Your task to perform on an android device: manage bookmarks in the chrome app Image 0: 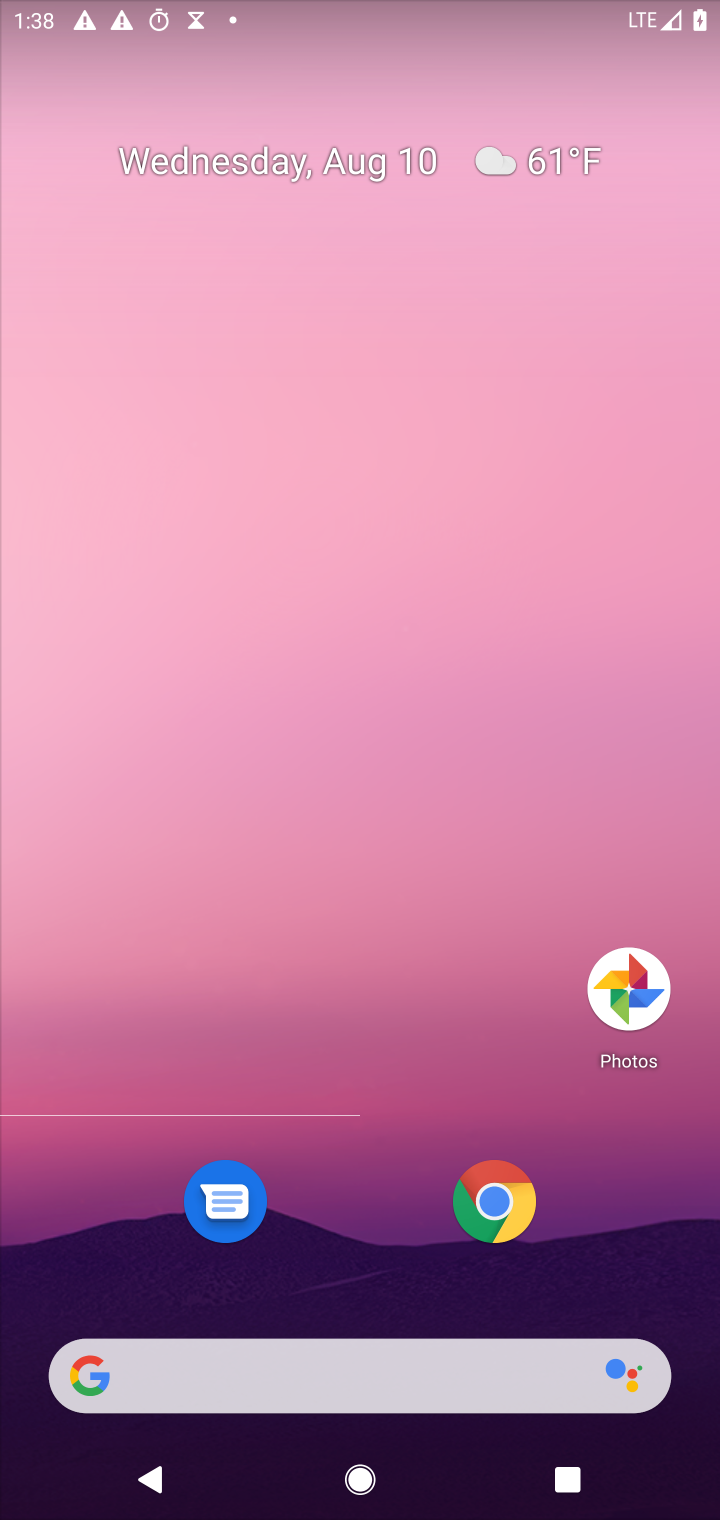
Step 0: press home button
Your task to perform on an android device: manage bookmarks in the chrome app Image 1: 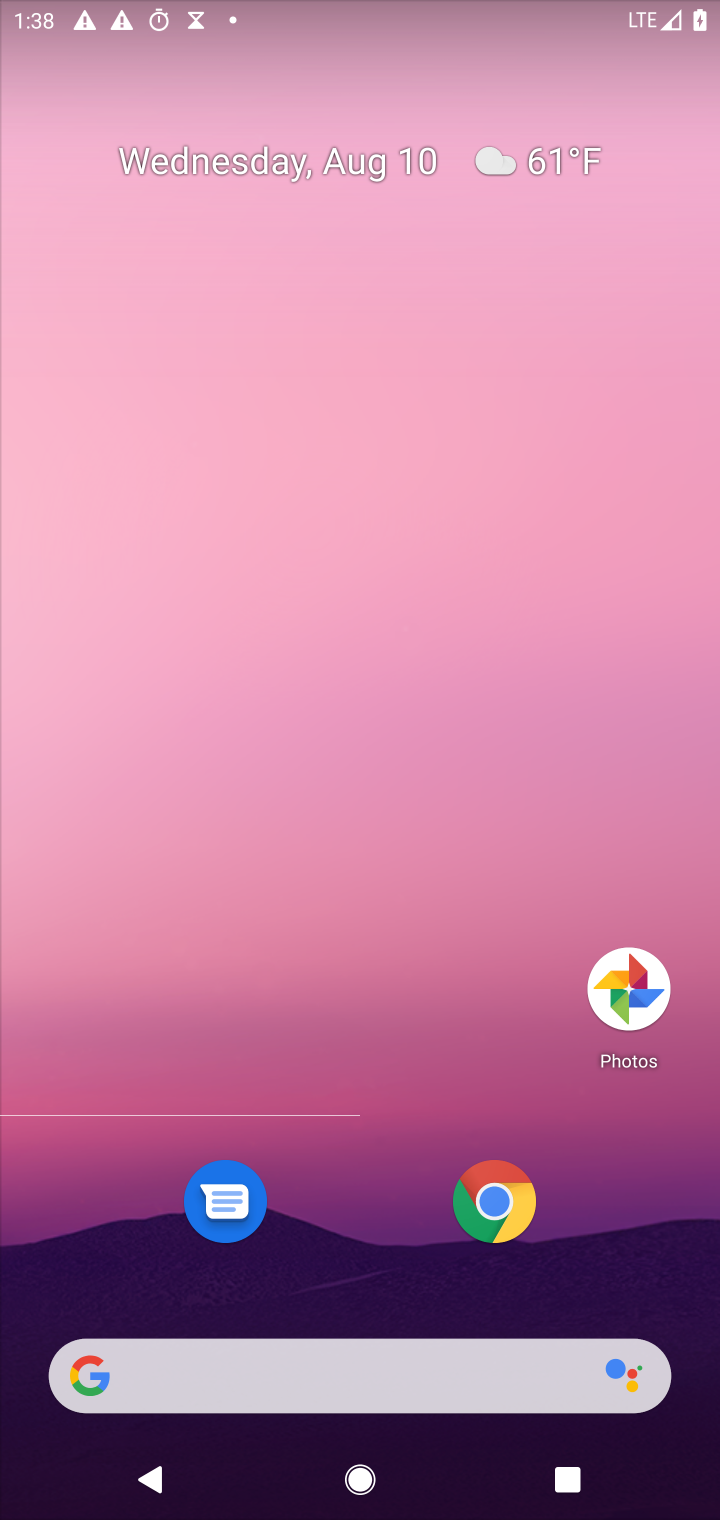
Step 1: click (495, 1184)
Your task to perform on an android device: manage bookmarks in the chrome app Image 2: 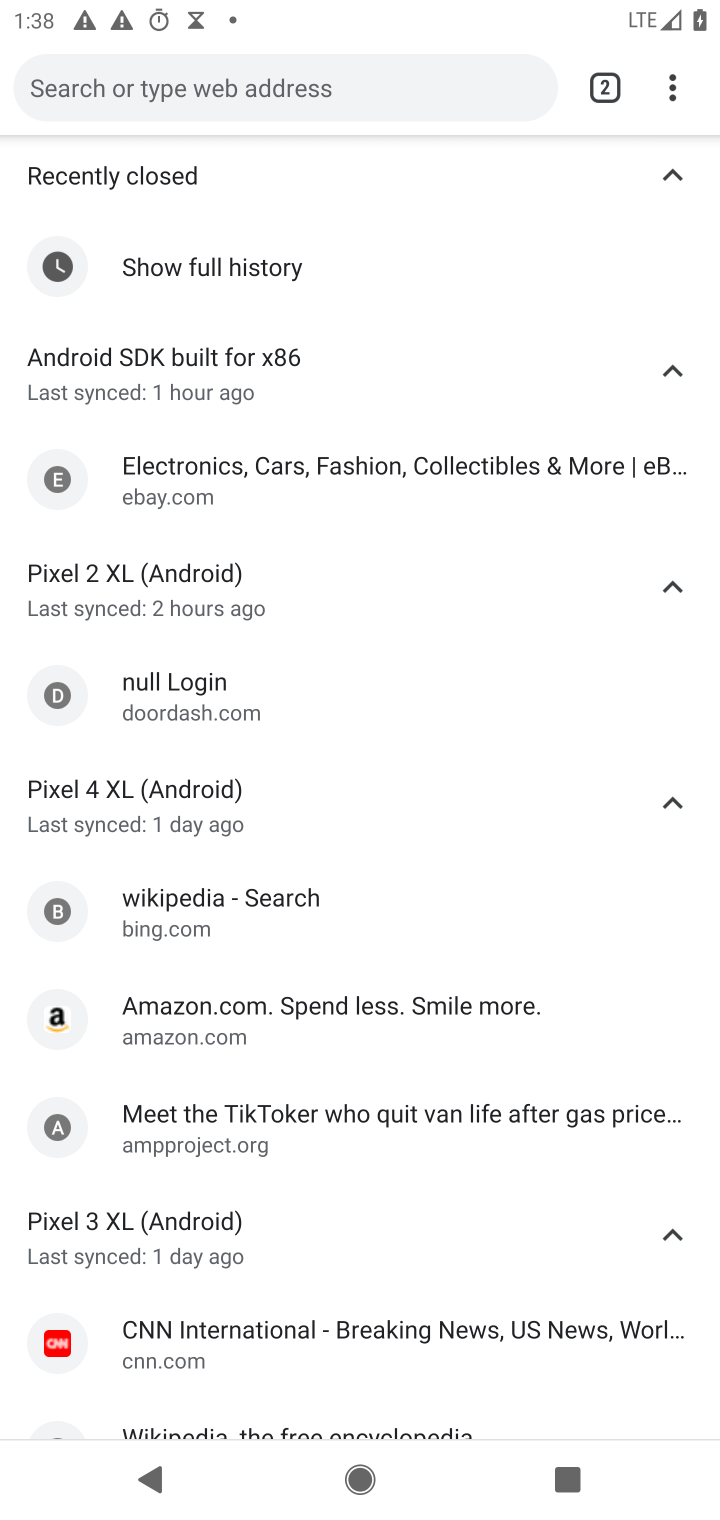
Step 2: click (663, 80)
Your task to perform on an android device: manage bookmarks in the chrome app Image 3: 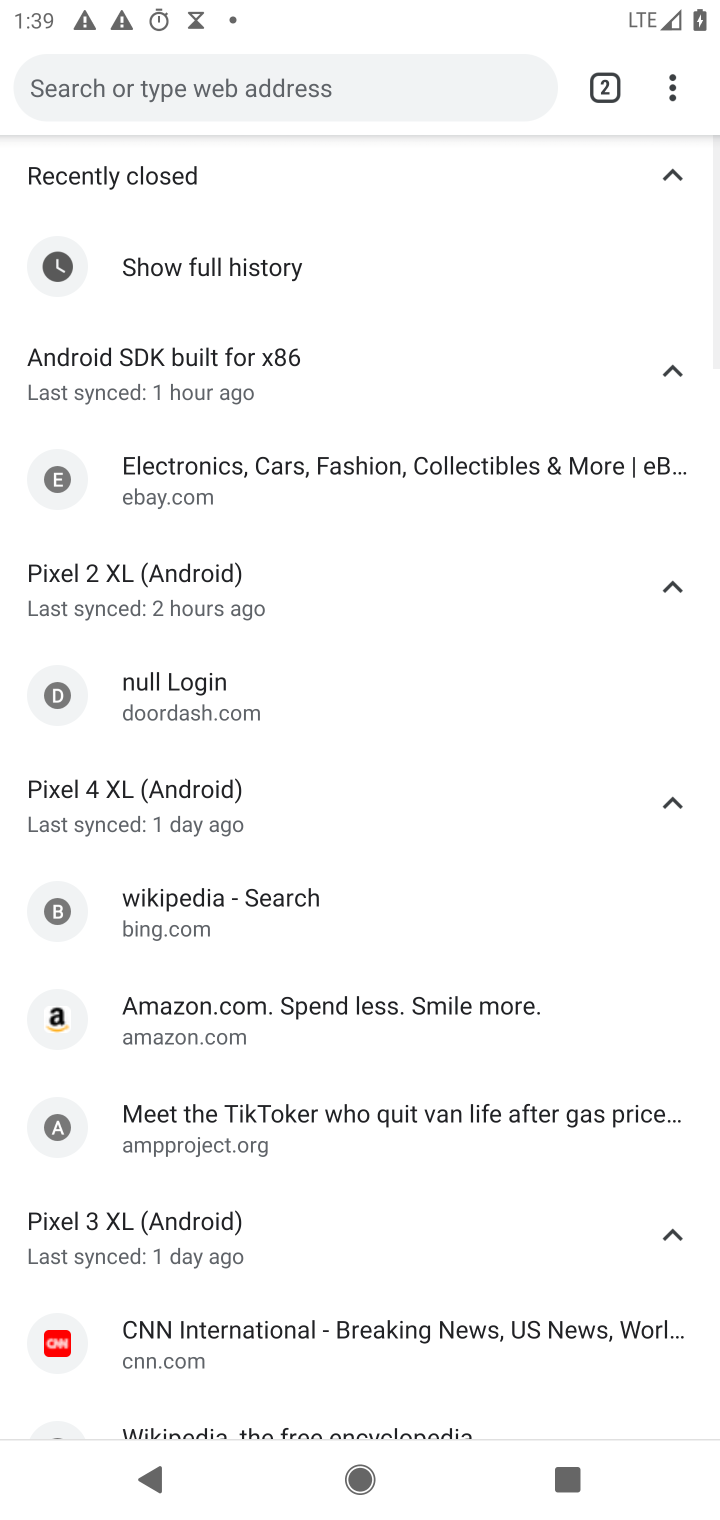
Step 3: click (675, 80)
Your task to perform on an android device: manage bookmarks in the chrome app Image 4: 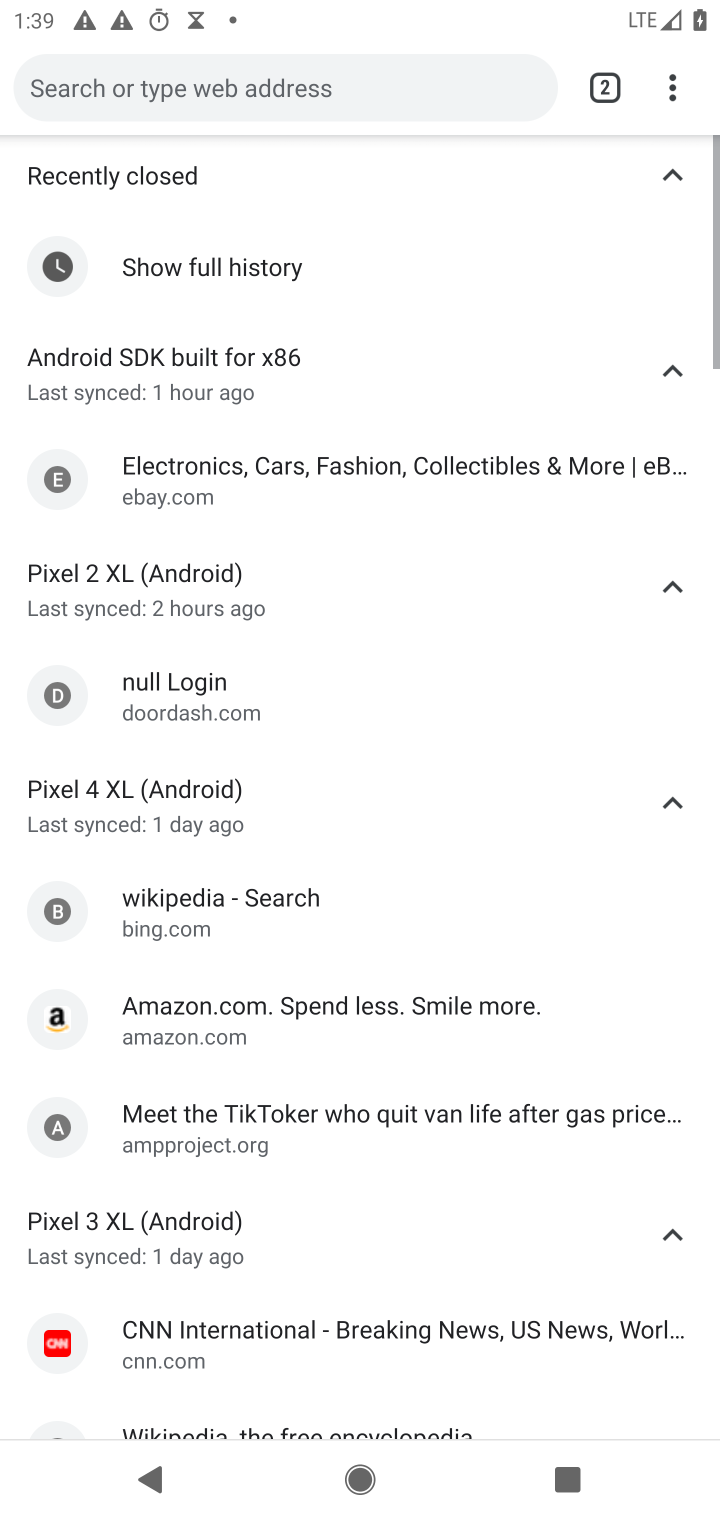
Step 4: task complete